Your task to perform on an android device: turn on airplane mode Image 0: 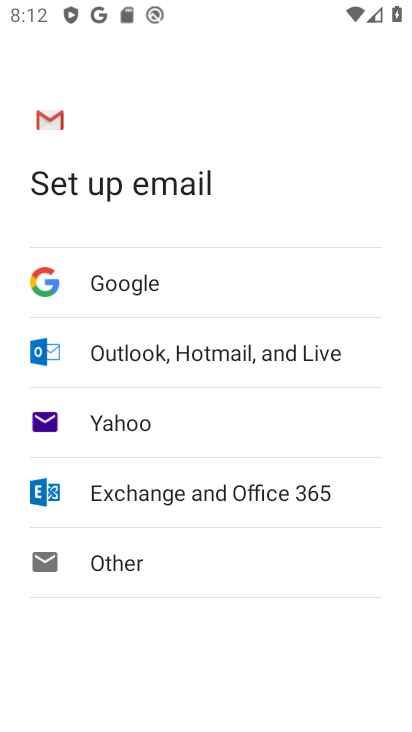
Step 0: press back button
Your task to perform on an android device: turn on airplane mode Image 1: 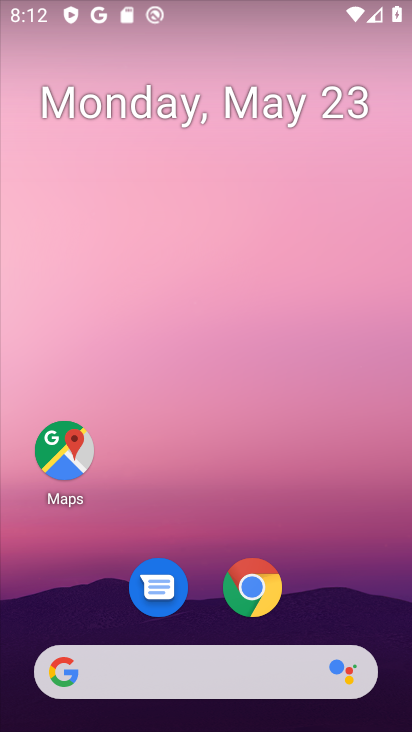
Step 1: drag from (351, 11) to (287, 580)
Your task to perform on an android device: turn on airplane mode Image 2: 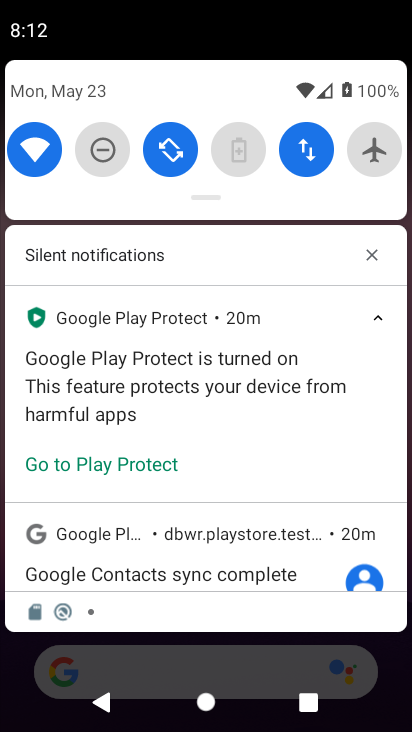
Step 2: click (368, 151)
Your task to perform on an android device: turn on airplane mode Image 3: 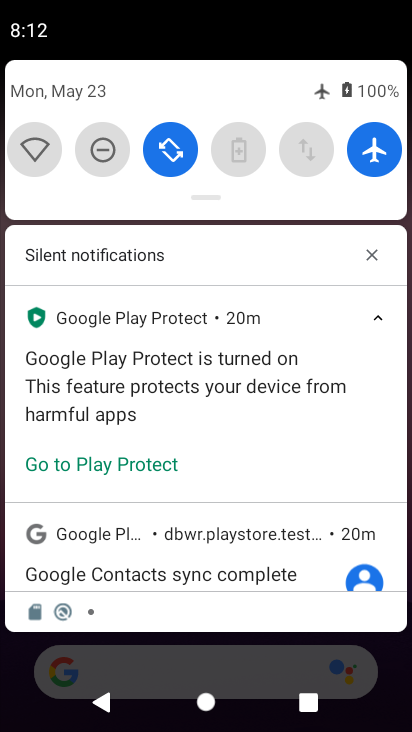
Step 3: task complete